Your task to perform on an android device: add a contact in the contacts app Image 0: 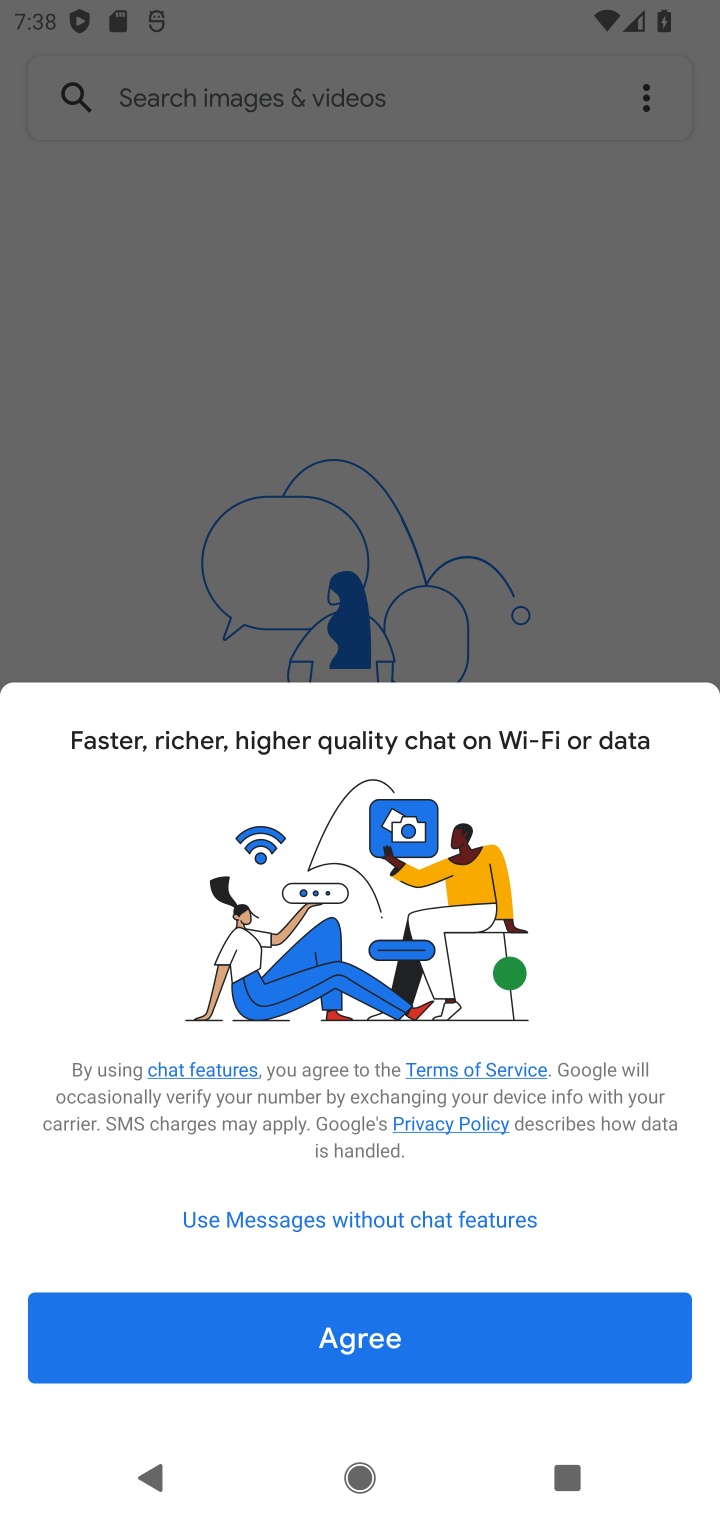
Step 0: press home button
Your task to perform on an android device: add a contact in the contacts app Image 1: 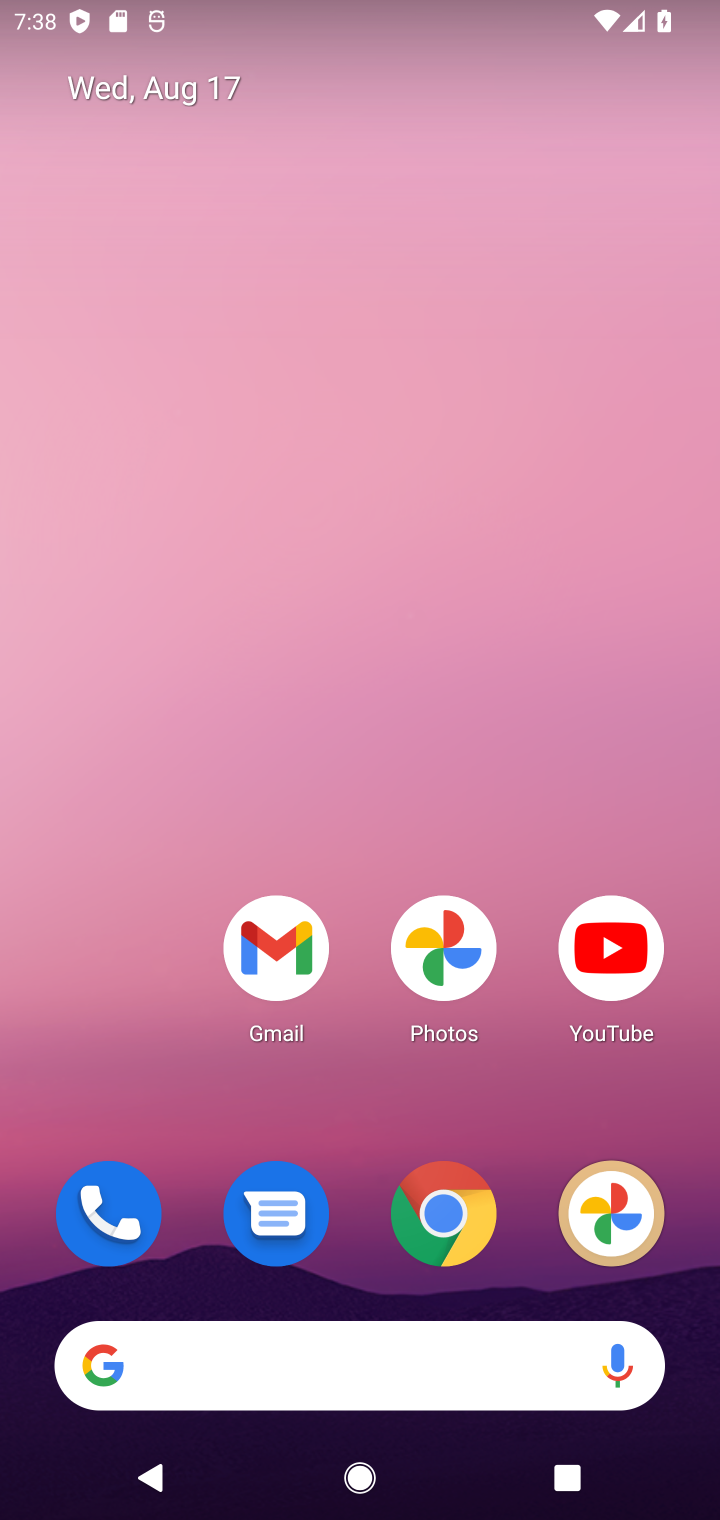
Step 1: drag from (377, 1305) to (304, 6)
Your task to perform on an android device: add a contact in the contacts app Image 2: 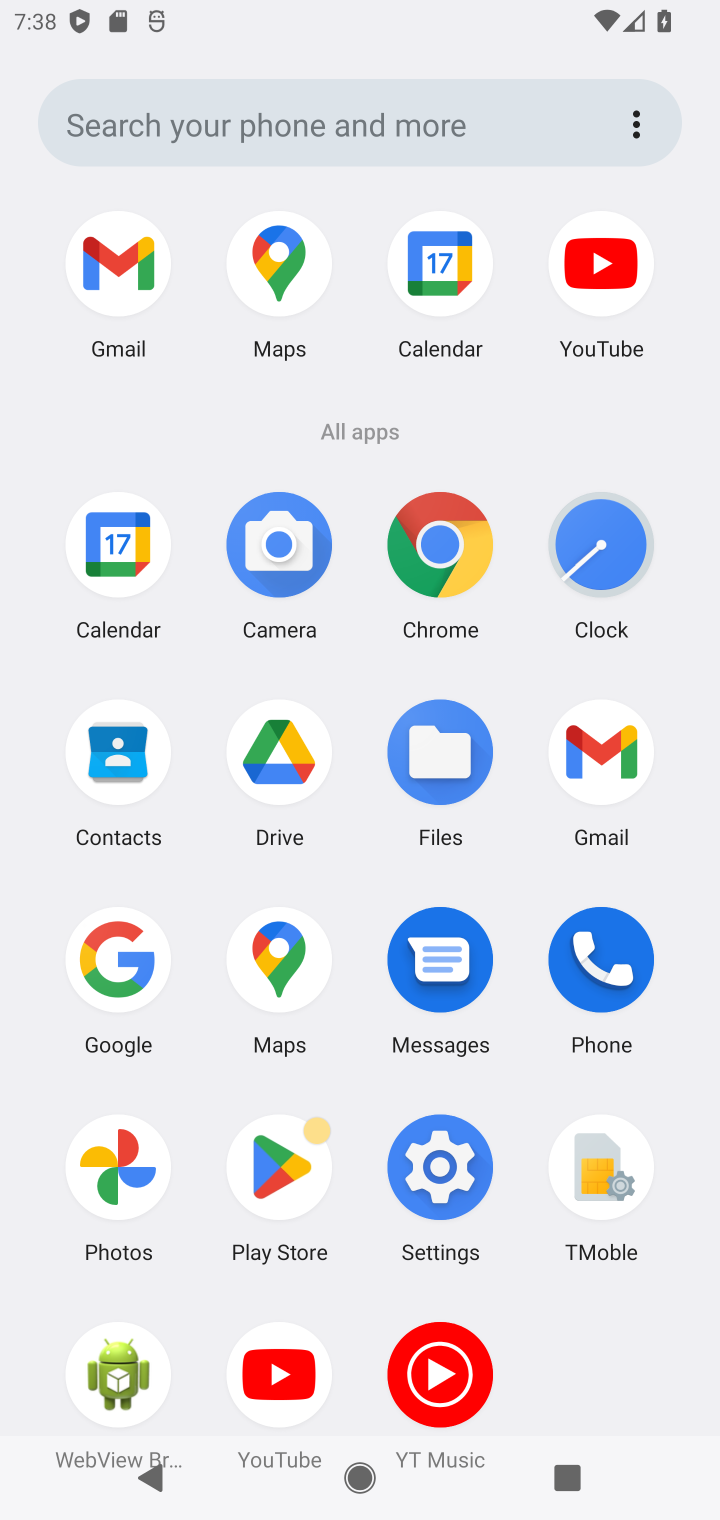
Step 2: click (143, 770)
Your task to perform on an android device: add a contact in the contacts app Image 3: 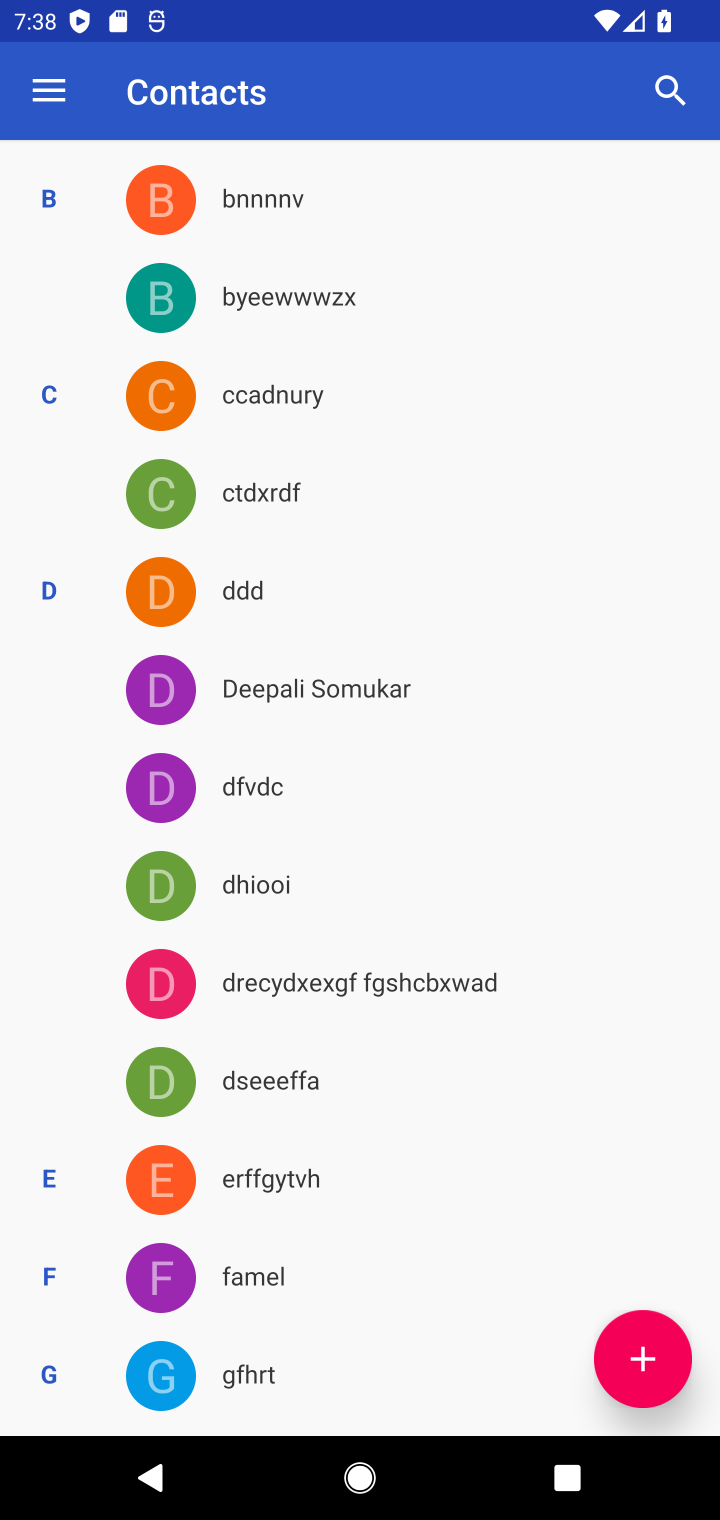
Step 3: click (656, 1394)
Your task to perform on an android device: add a contact in the contacts app Image 4: 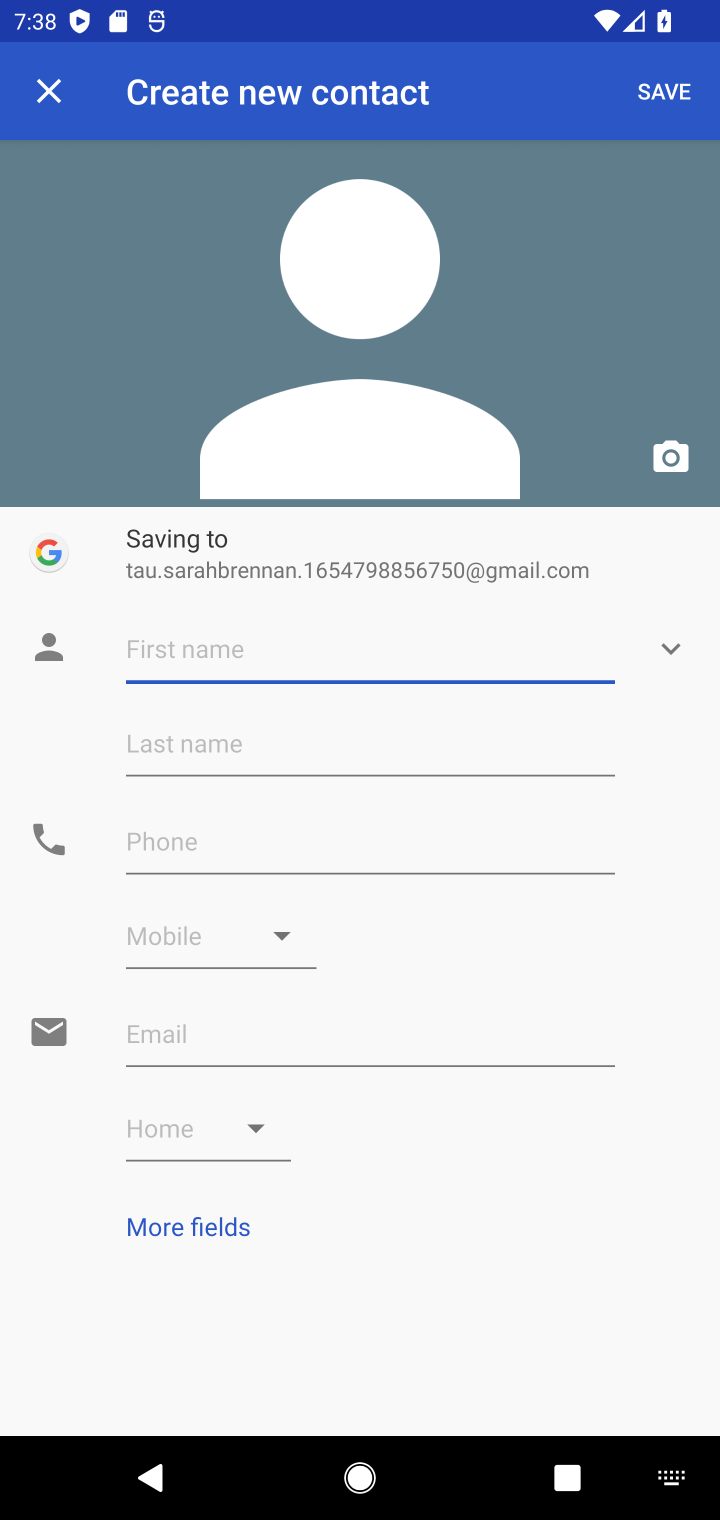
Step 4: type "asdsfdgfhgj"
Your task to perform on an android device: add a contact in the contacts app Image 5: 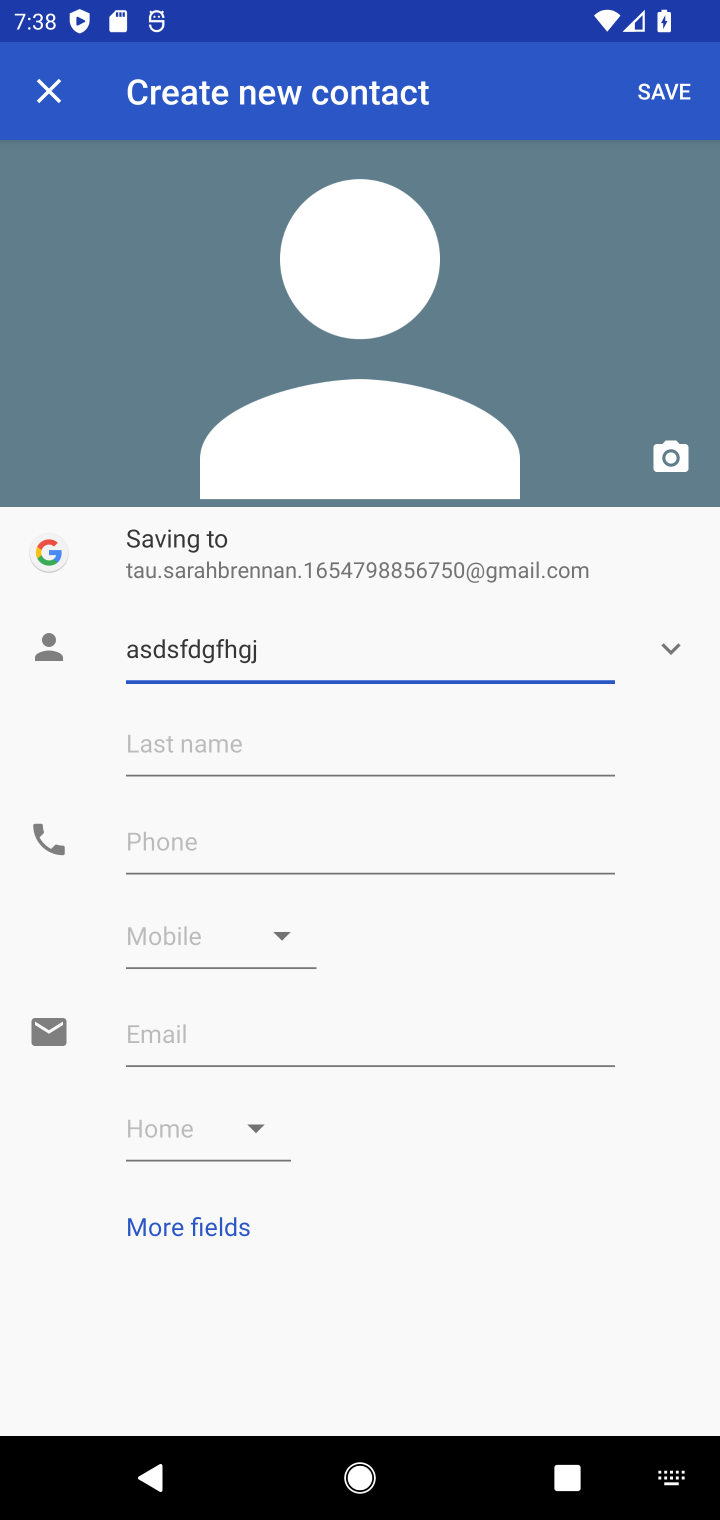
Step 5: click (302, 718)
Your task to perform on an android device: add a contact in the contacts app Image 6: 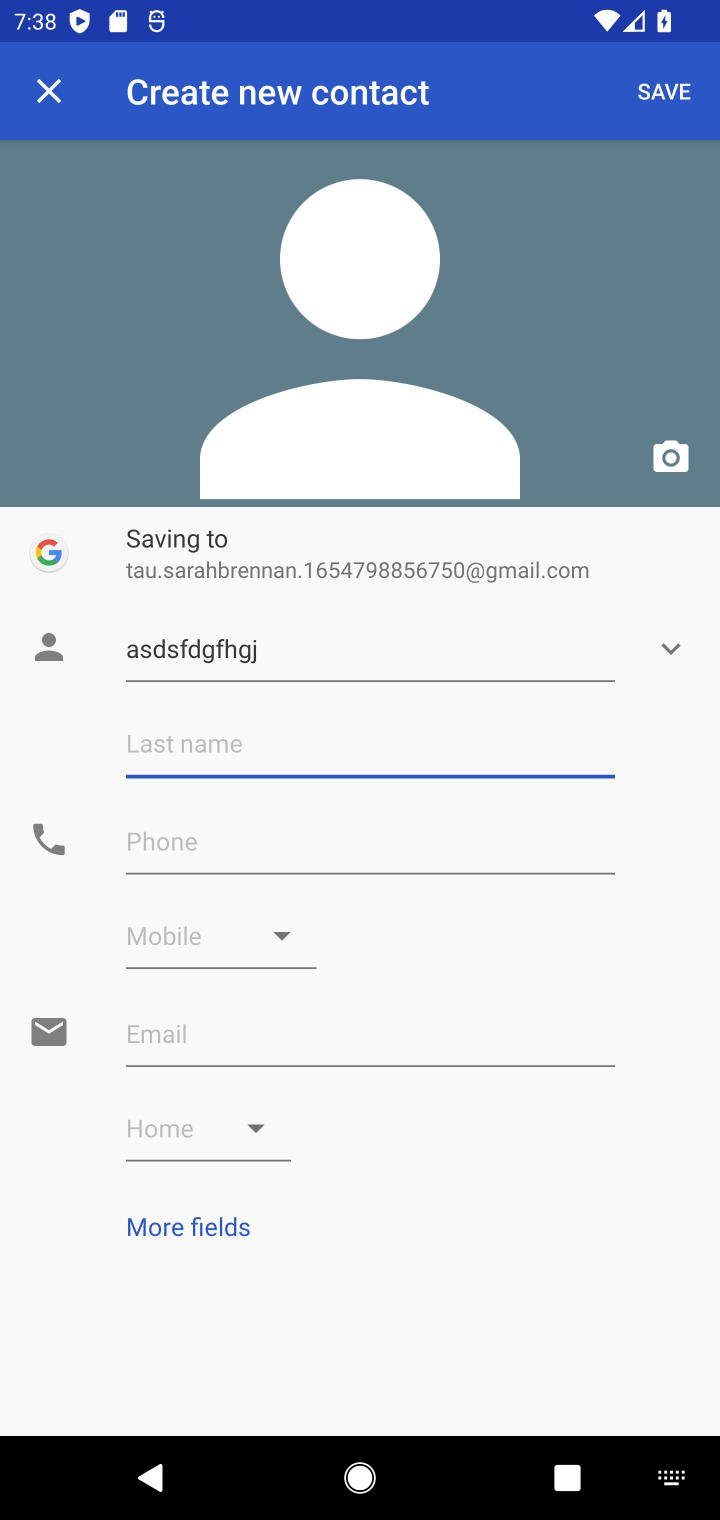
Step 6: type "sadf"
Your task to perform on an android device: add a contact in the contacts app Image 7: 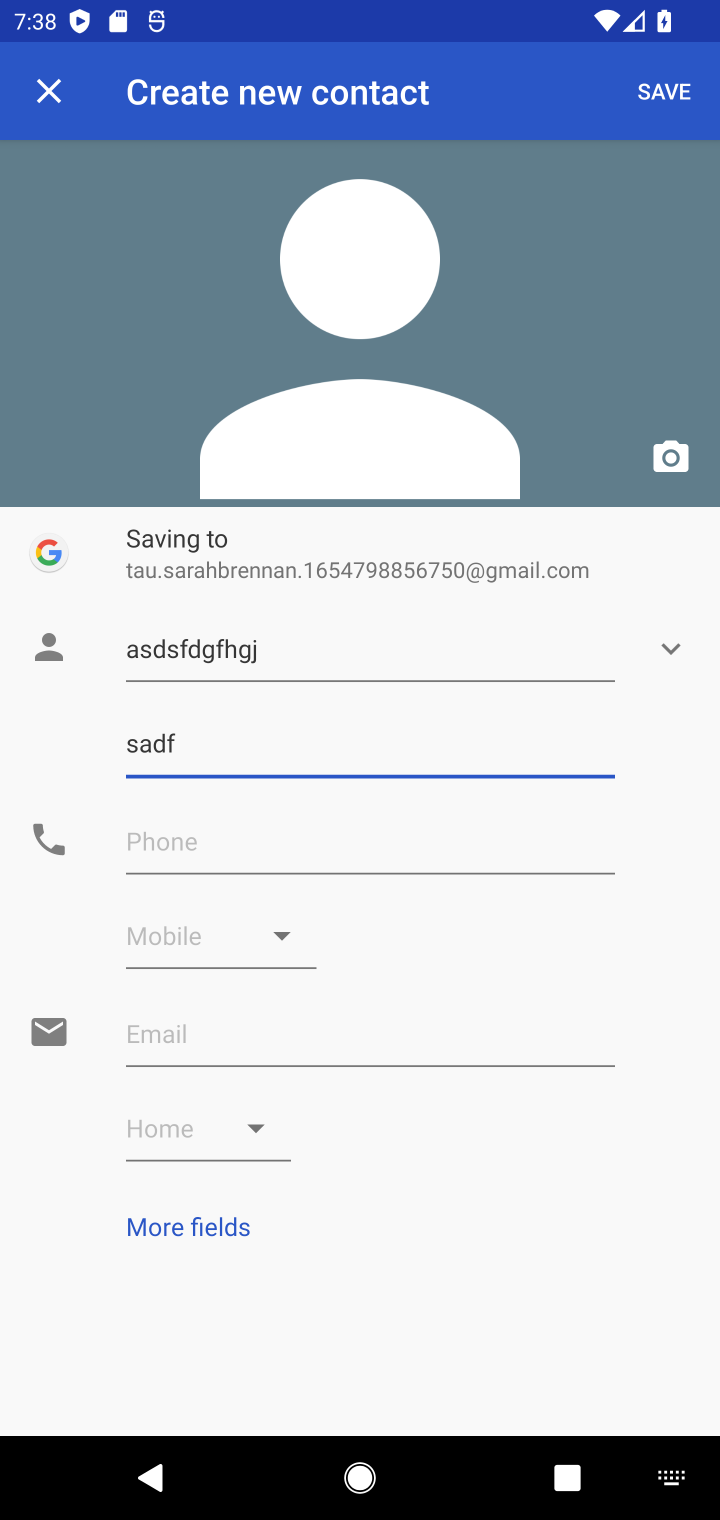
Step 7: click (208, 837)
Your task to perform on an android device: add a contact in the contacts app Image 8: 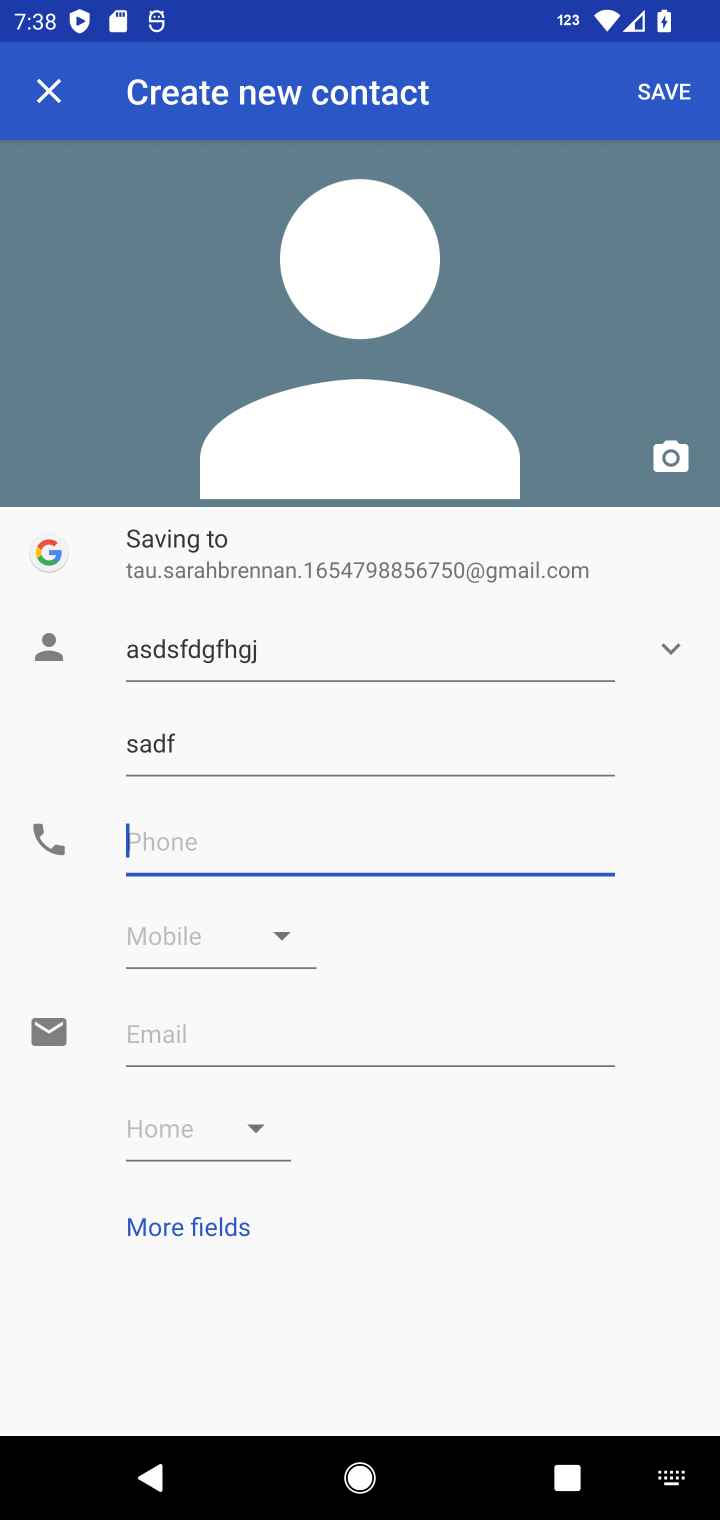
Step 8: type "2345678976"
Your task to perform on an android device: add a contact in the contacts app Image 9: 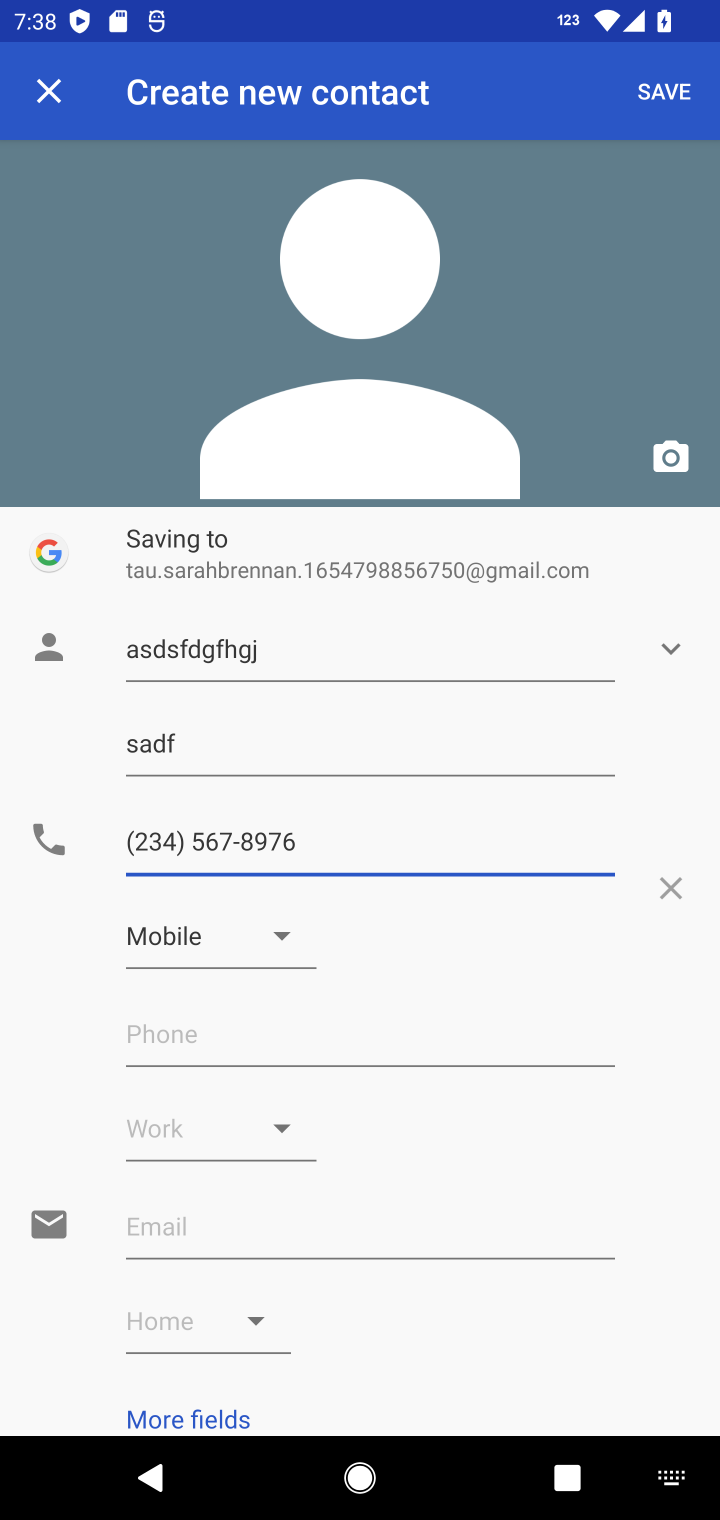
Step 9: type "]"
Your task to perform on an android device: add a contact in the contacts app Image 10: 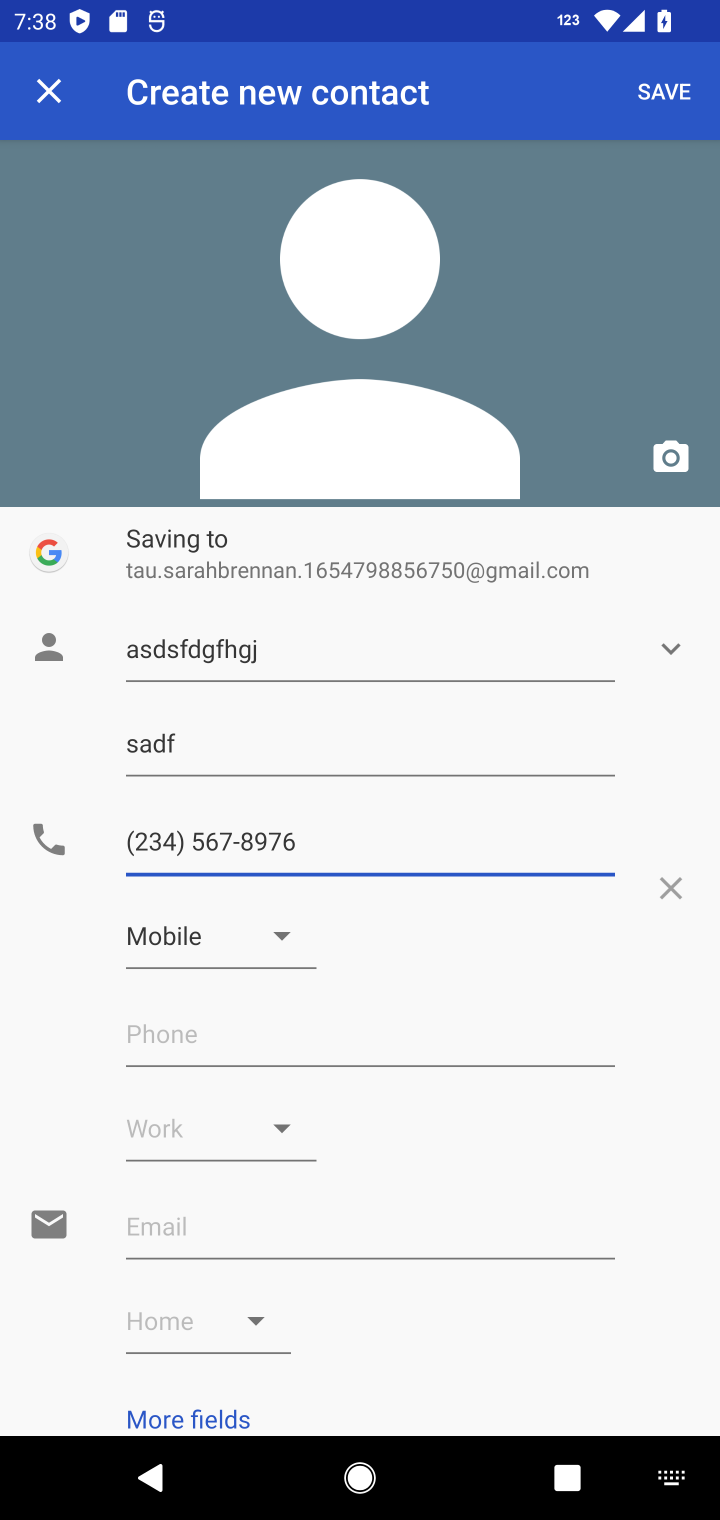
Step 10: click (676, 108)
Your task to perform on an android device: add a contact in the contacts app Image 11: 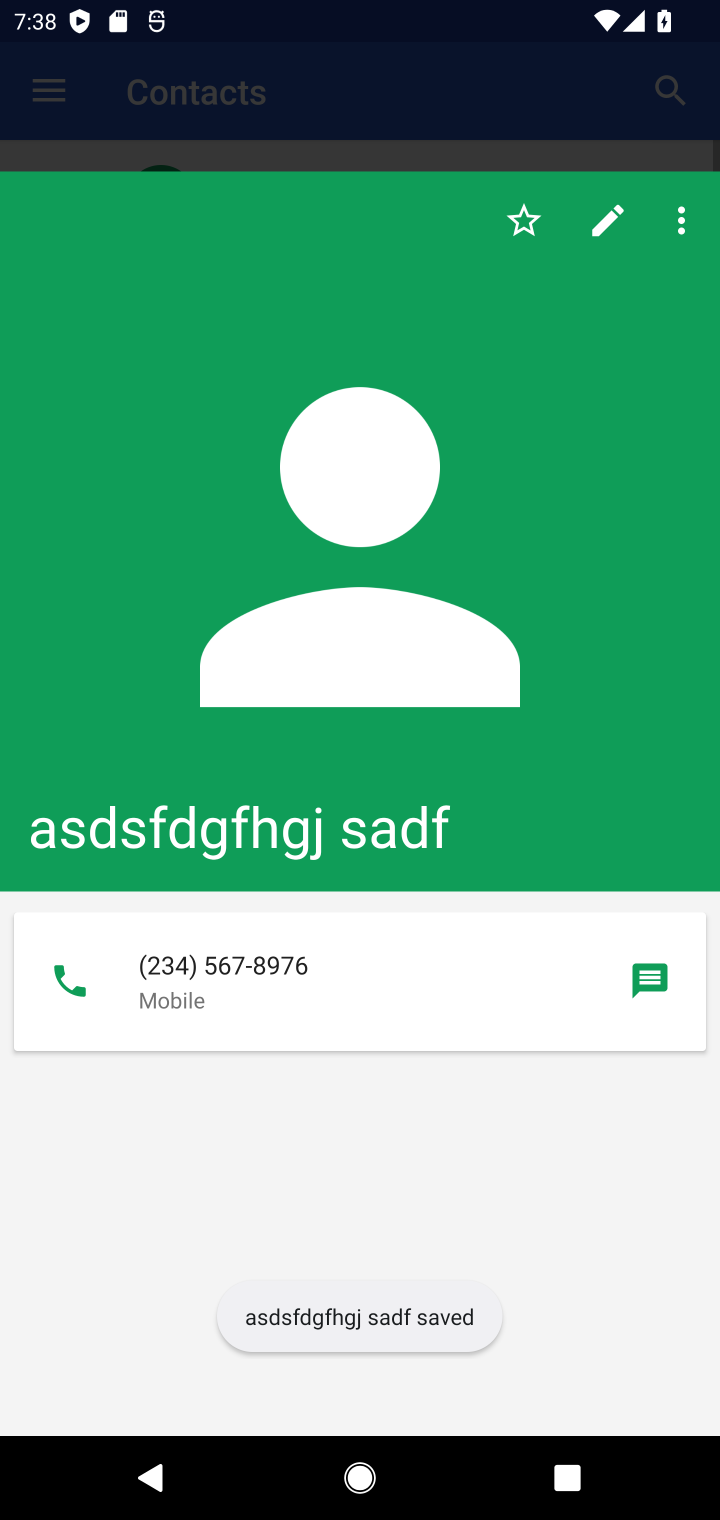
Step 11: task complete